Your task to perform on an android device: change keyboard looks Image 0: 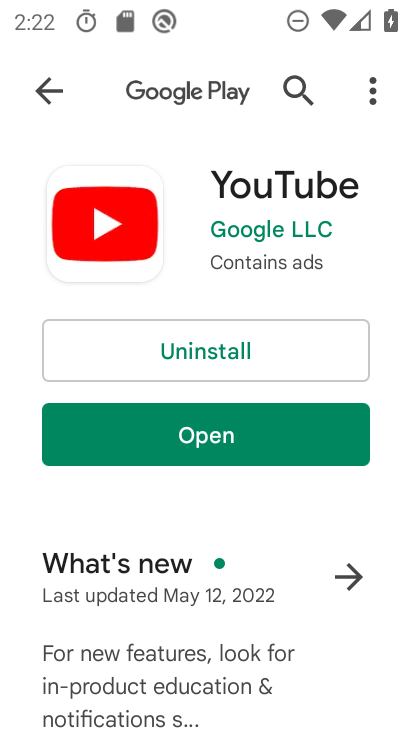
Step 0: press home button
Your task to perform on an android device: change keyboard looks Image 1: 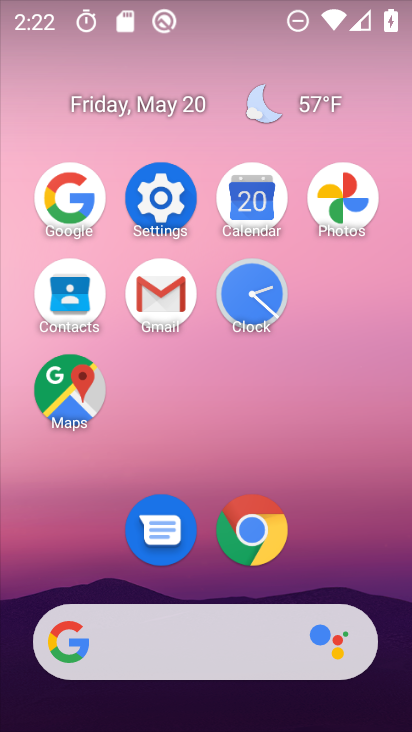
Step 1: click (163, 196)
Your task to perform on an android device: change keyboard looks Image 2: 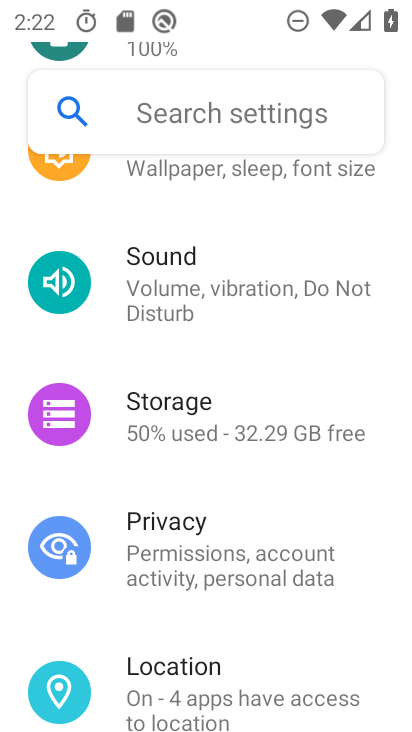
Step 2: drag from (256, 638) to (282, 165)
Your task to perform on an android device: change keyboard looks Image 3: 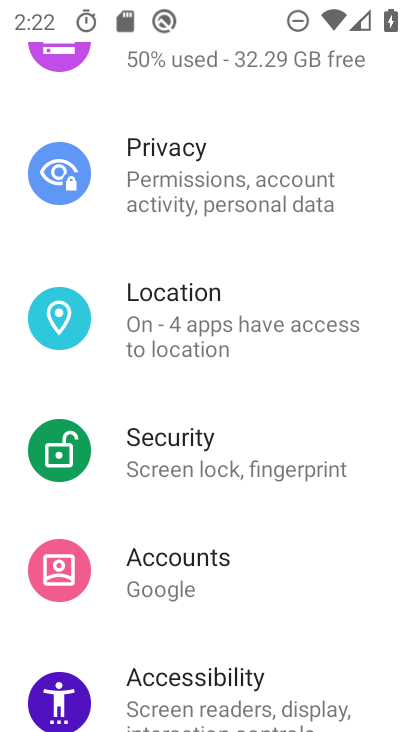
Step 3: drag from (248, 508) to (280, 196)
Your task to perform on an android device: change keyboard looks Image 4: 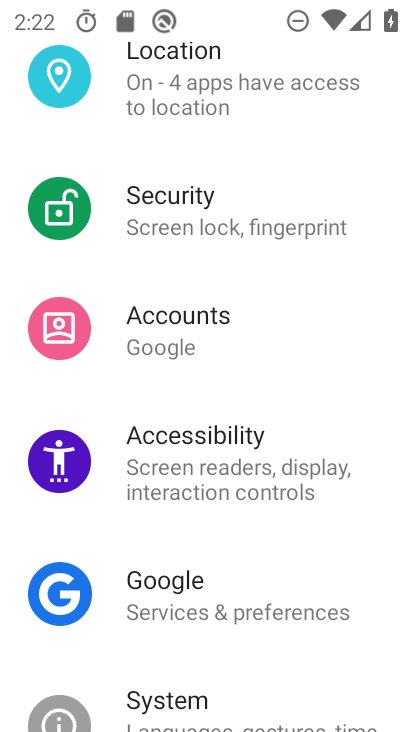
Step 4: click (203, 704)
Your task to perform on an android device: change keyboard looks Image 5: 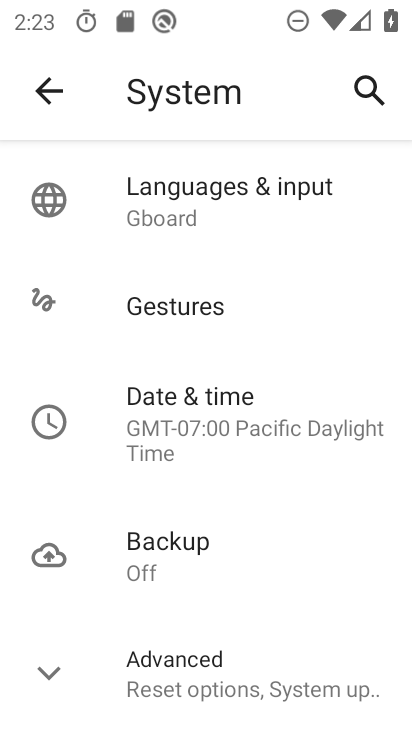
Step 5: click (197, 210)
Your task to perform on an android device: change keyboard looks Image 6: 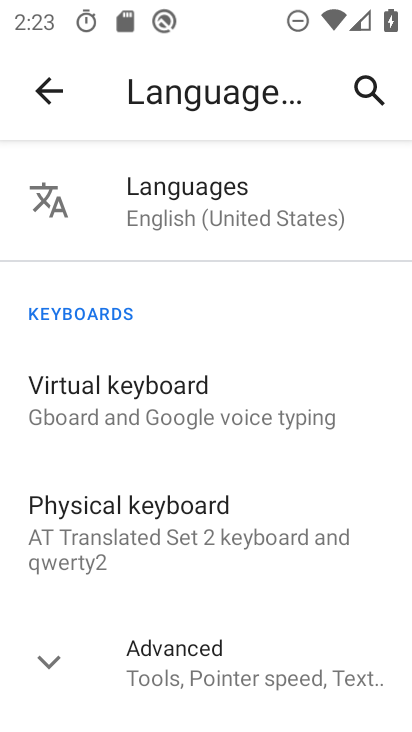
Step 6: click (163, 382)
Your task to perform on an android device: change keyboard looks Image 7: 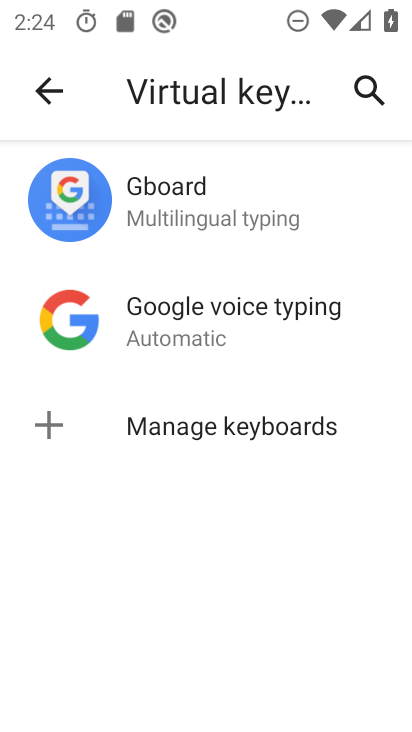
Step 7: click (234, 201)
Your task to perform on an android device: change keyboard looks Image 8: 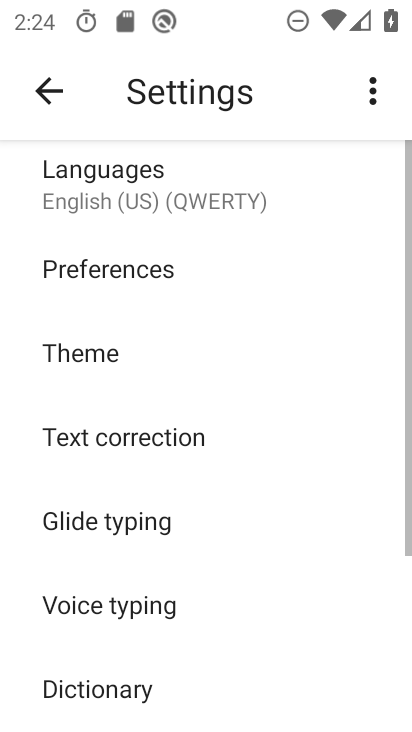
Step 8: click (167, 366)
Your task to perform on an android device: change keyboard looks Image 9: 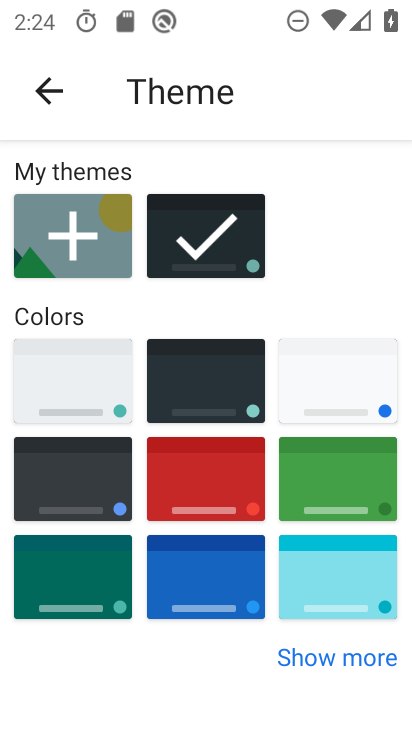
Step 9: click (259, 415)
Your task to perform on an android device: change keyboard looks Image 10: 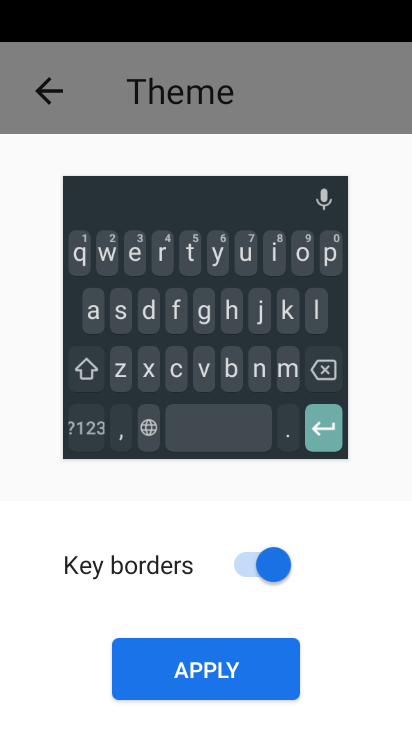
Step 10: click (227, 686)
Your task to perform on an android device: change keyboard looks Image 11: 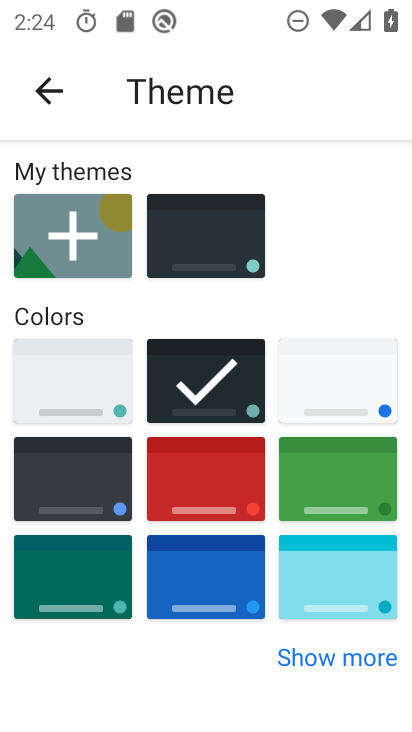
Step 11: task complete